Your task to perform on an android device: open app "Adobe Express: Graphic Design" Image 0: 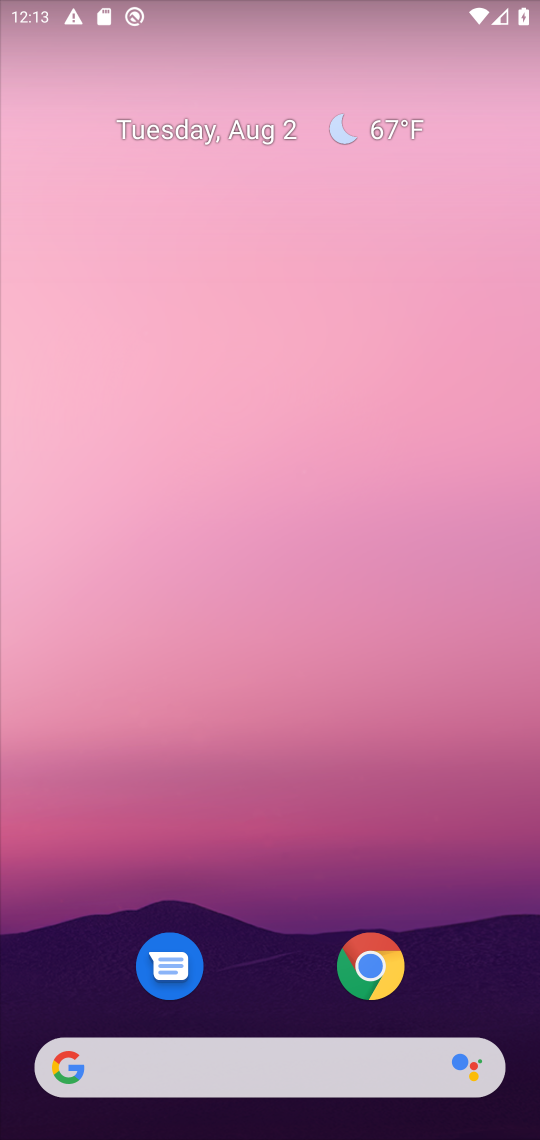
Step 0: press home button
Your task to perform on an android device: open app "Adobe Express: Graphic Design" Image 1: 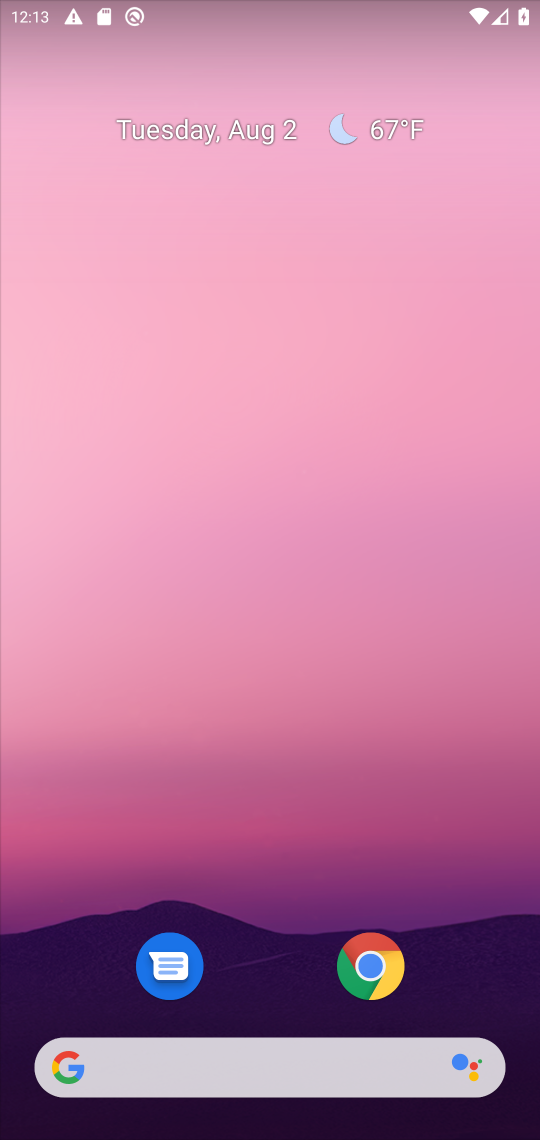
Step 1: drag from (273, 792) to (291, 77)
Your task to perform on an android device: open app "Adobe Express: Graphic Design" Image 2: 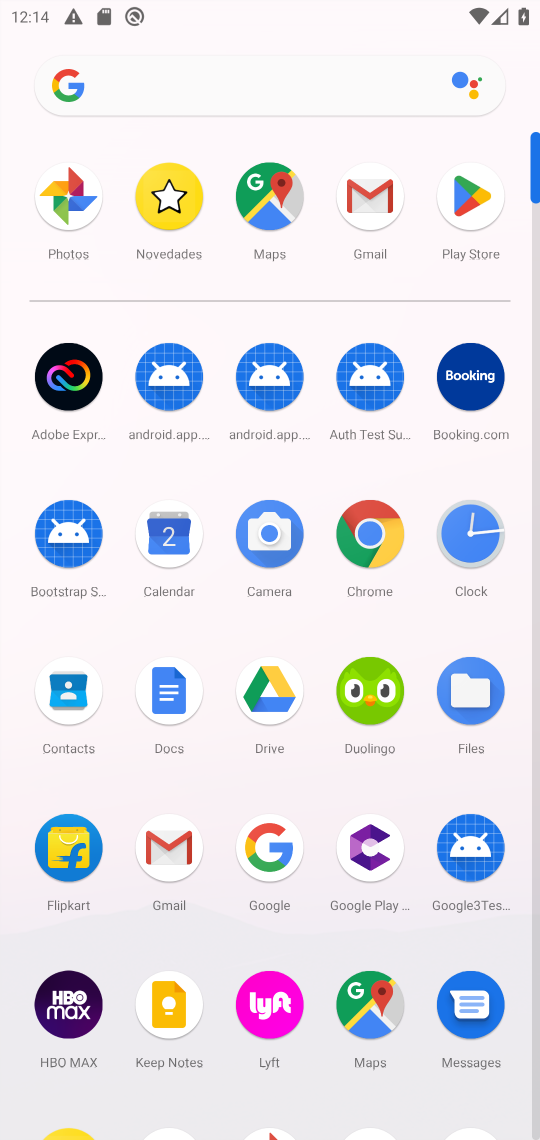
Step 2: click (462, 192)
Your task to perform on an android device: open app "Adobe Express: Graphic Design" Image 3: 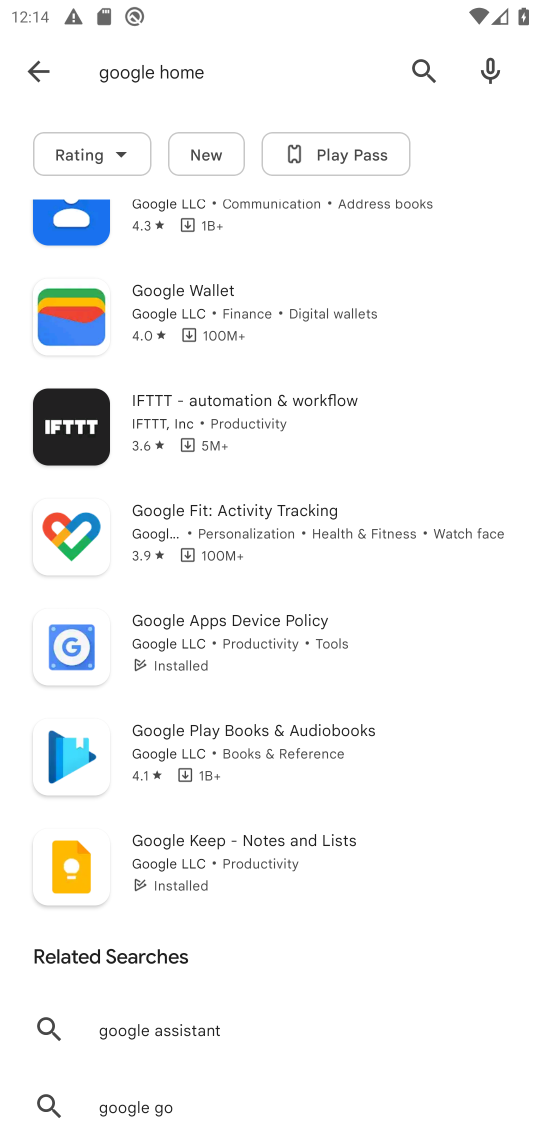
Step 3: click (421, 66)
Your task to perform on an android device: open app "Adobe Express: Graphic Design" Image 4: 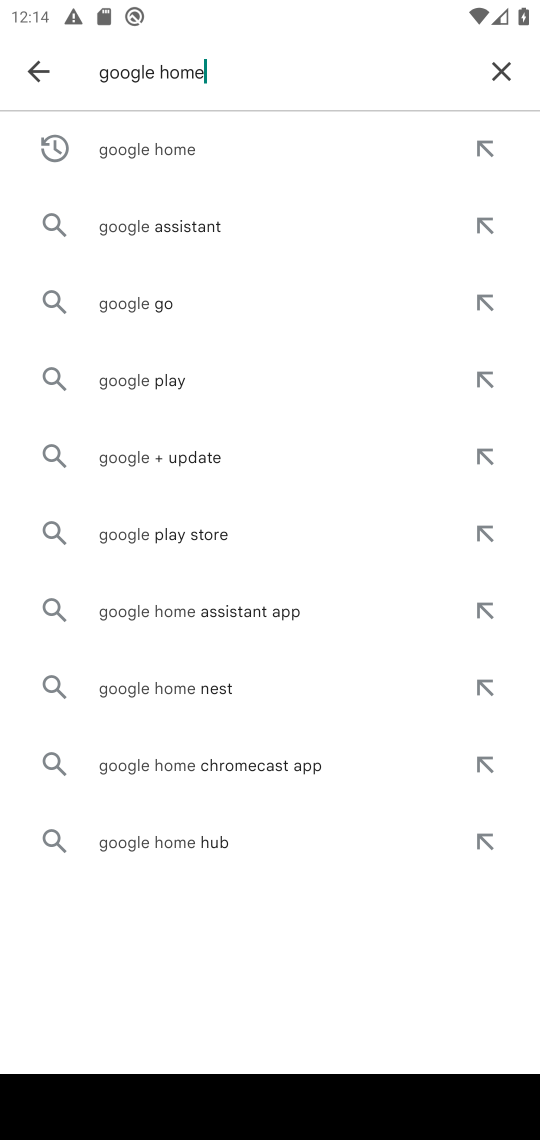
Step 4: click (490, 80)
Your task to perform on an android device: open app "Adobe Express: Graphic Design" Image 5: 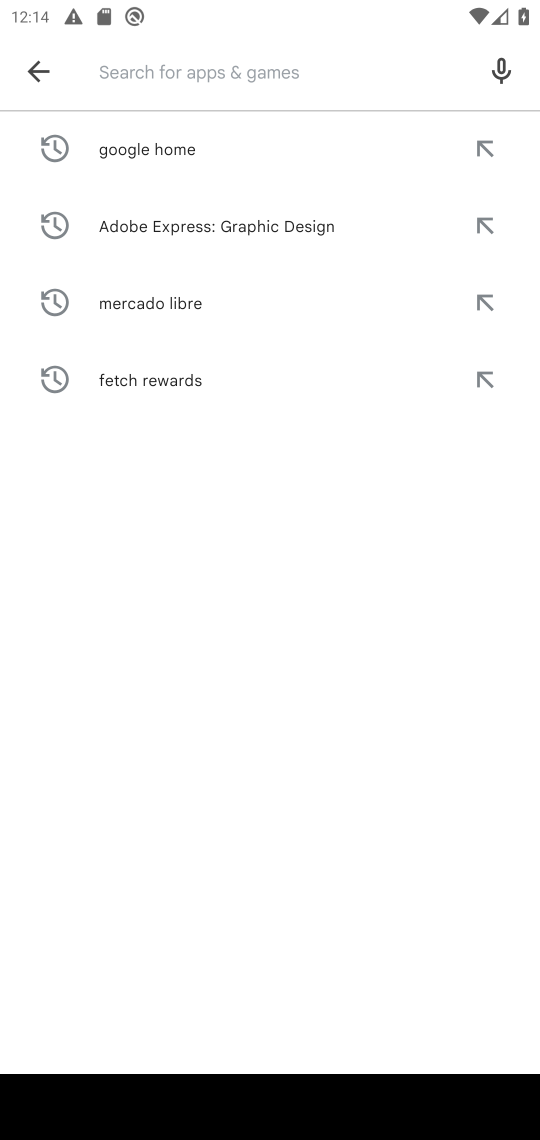
Step 5: click (342, 88)
Your task to perform on an android device: open app "Adobe Express: Graphic Design" Image 6: 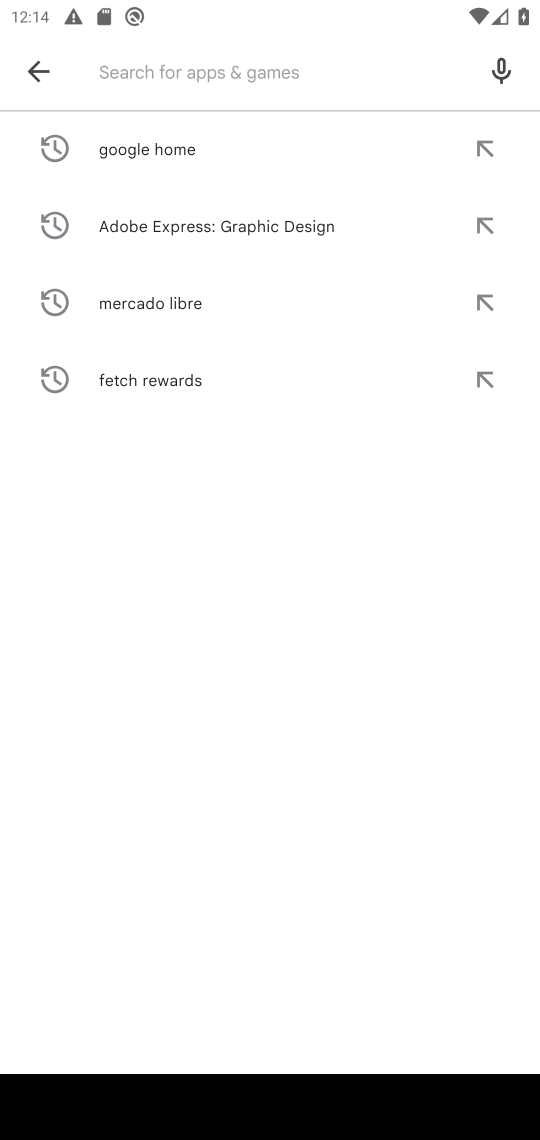
Step 6: type "Adobe Express: Graphic Design"
Your task to perform on an android device: open app "Adobe Express: Graphic Design" Image 7: 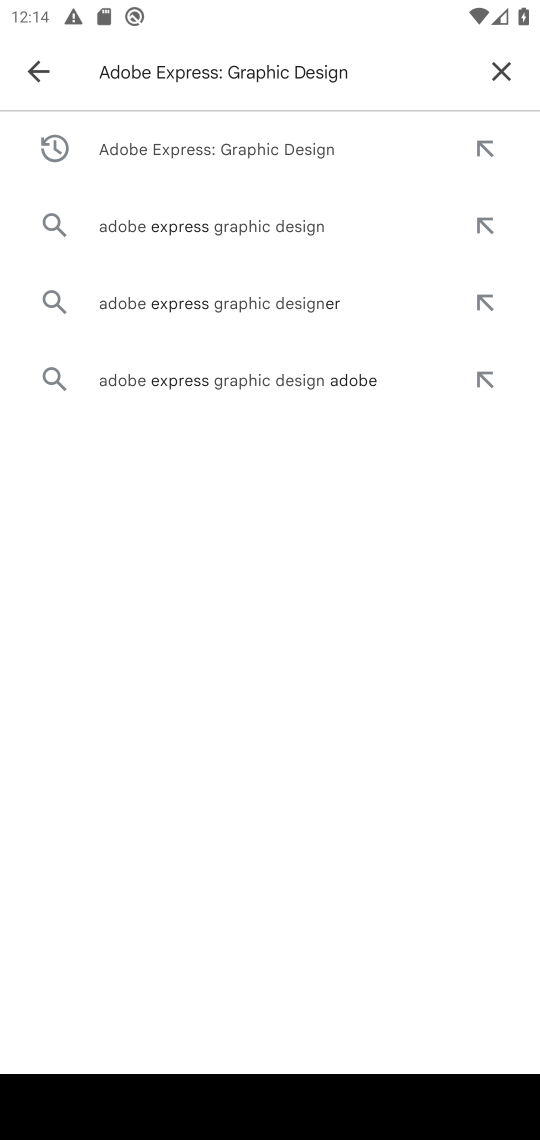
Step 7: click (317, 141)
Your task to perform on an android device: open app "Adobe Express: Graphic Design" Image 8: 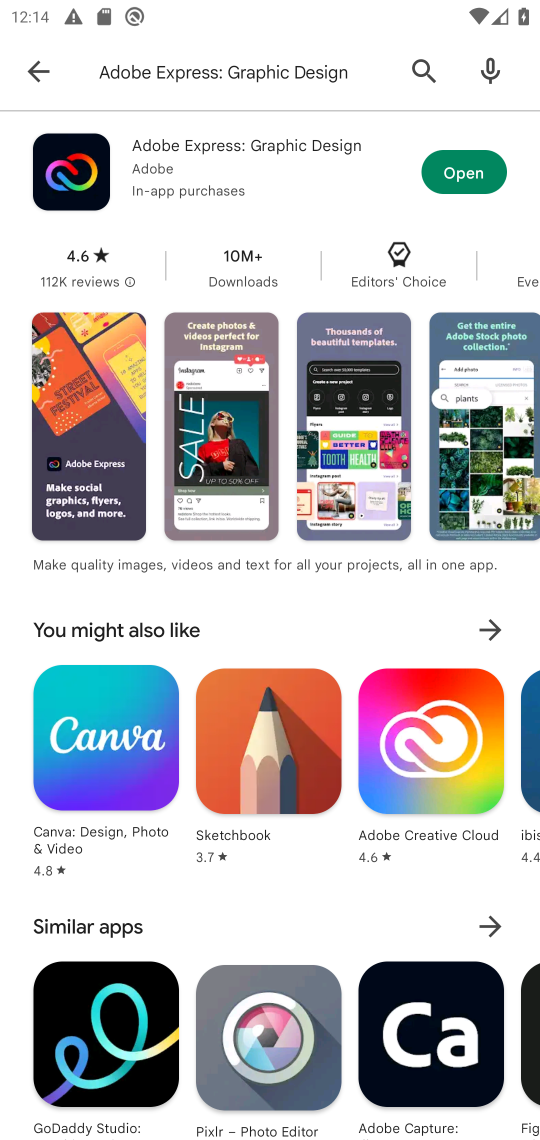
Step 8: click (468, 170)
Your task to perform on an android device: open app "Adobe Express: Graphic Design" Image 9: 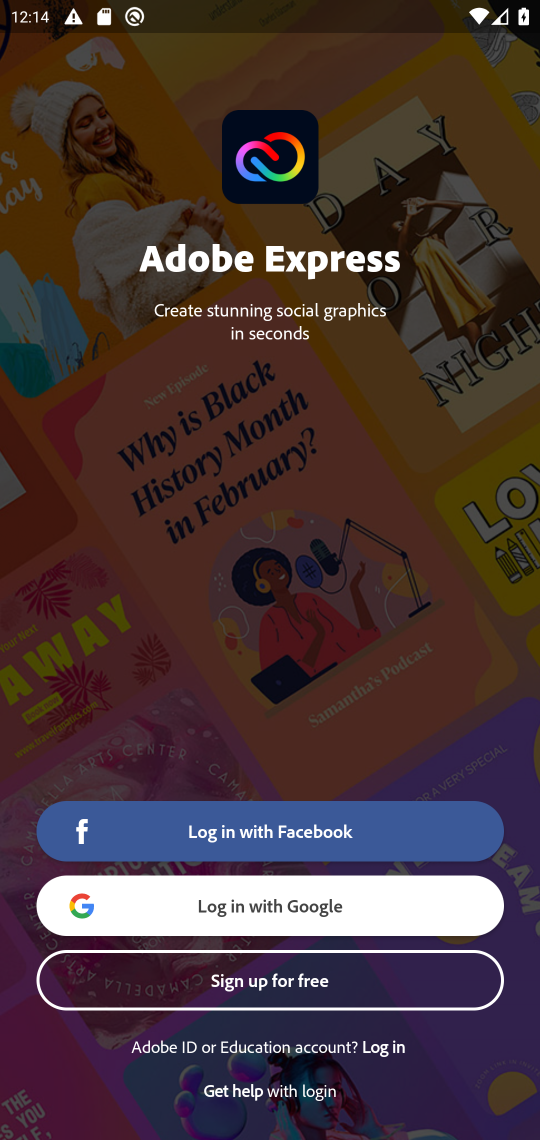
Step 9: task complete